Your task to perform on an android device: uninstall "Instagram" Image 0: 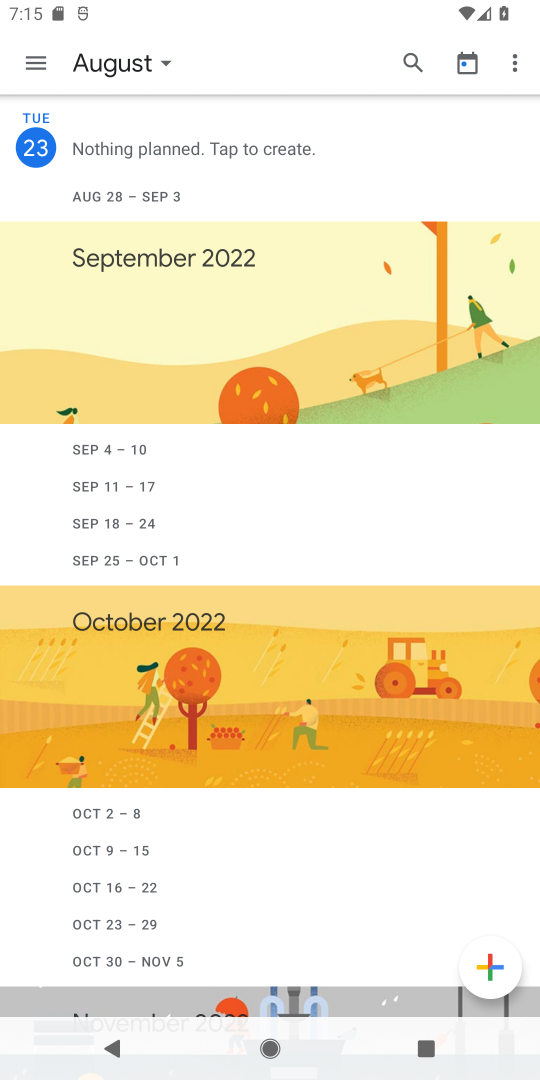
Step 0: press home button
Your task to perform on an android device: uninstall "Instagram" Image 1: 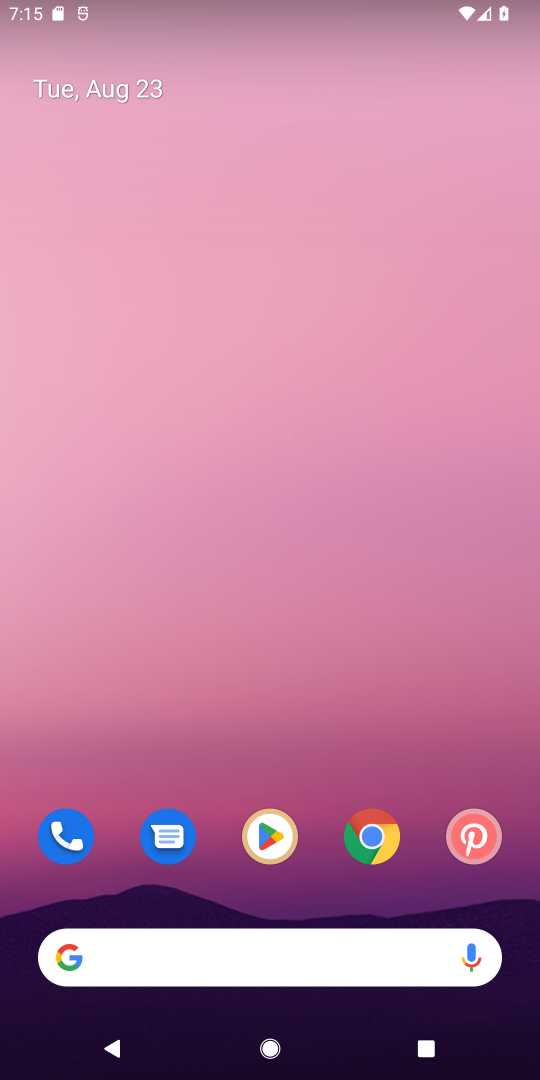
Step 1: click (268, 833)
Your task to perform on an android device: uninstall "Instagram" Image 2: 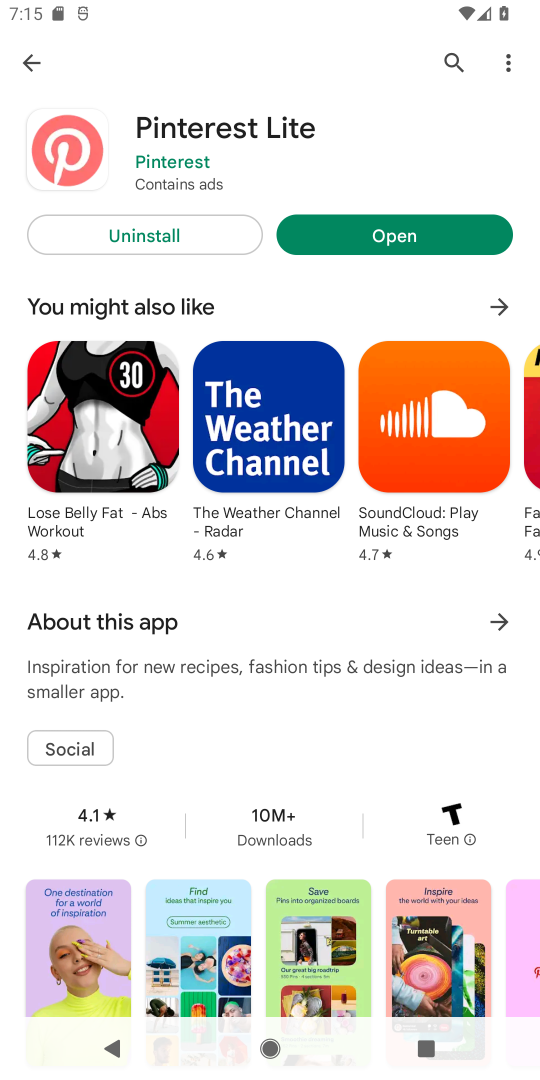
Step 2: click (452, 56)
Your task to perform on an android device: uninstall "Instagram" Image 3: 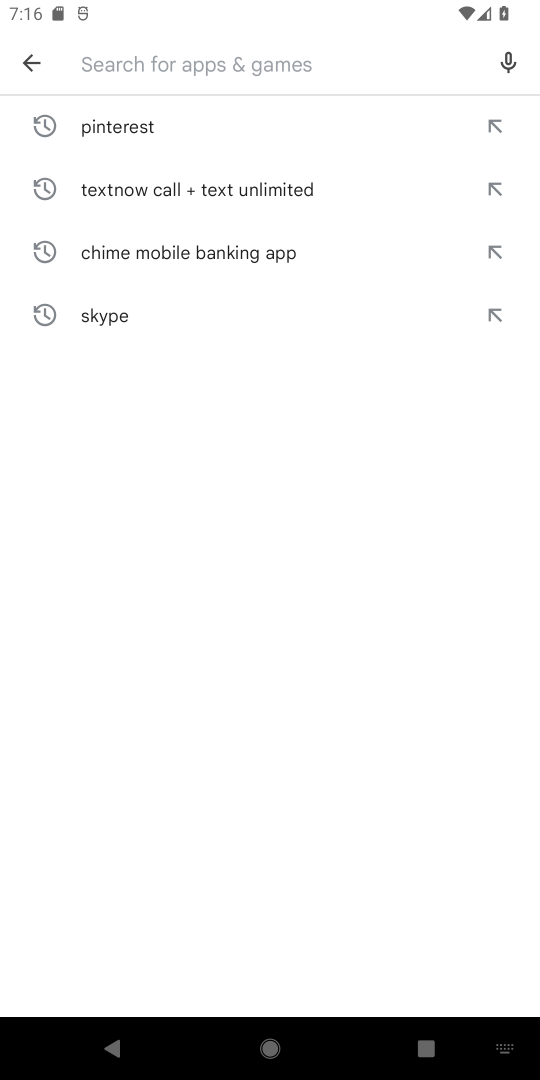
Step 3: type "Instagram"
Your task to perform on an android device: uninstall "Instagram" Image 4: 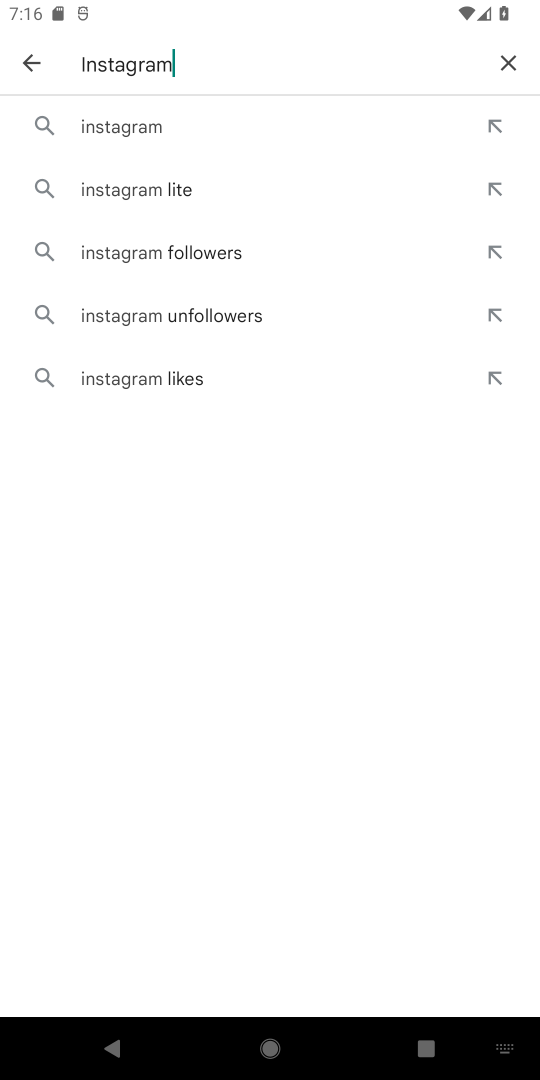
Step 4: click (160, 148)
Your task to perform on an android device: uninstall "Instagram" Image 5: 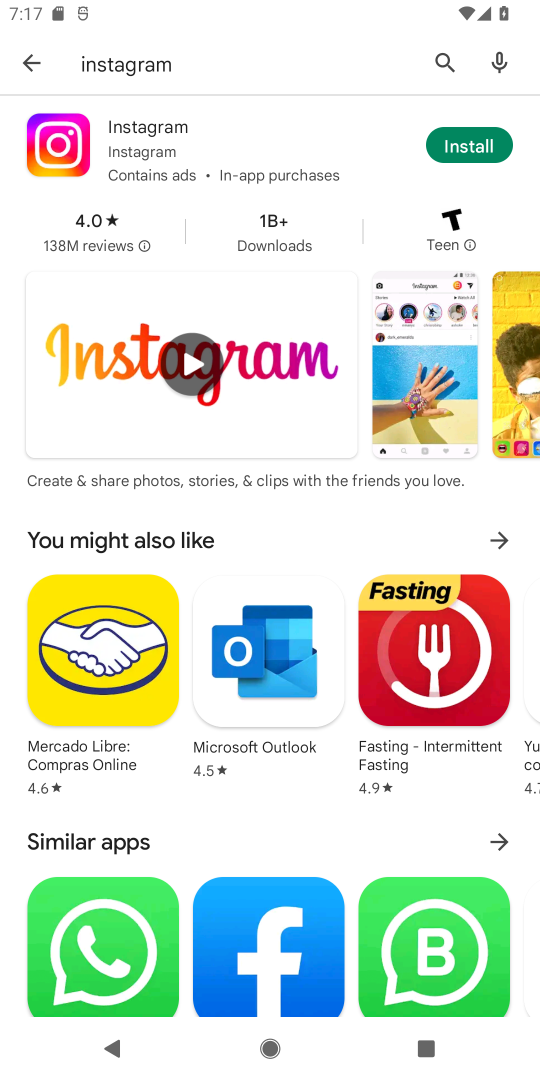
Step 5: task complete